Your task to perform on an android device: Open location settings Image 0: 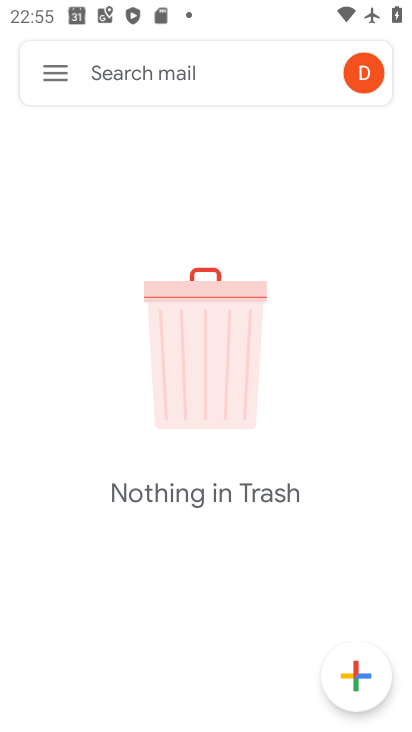
Step 0: press home button
Your task to perform on an android device: Open location settings Image 1: 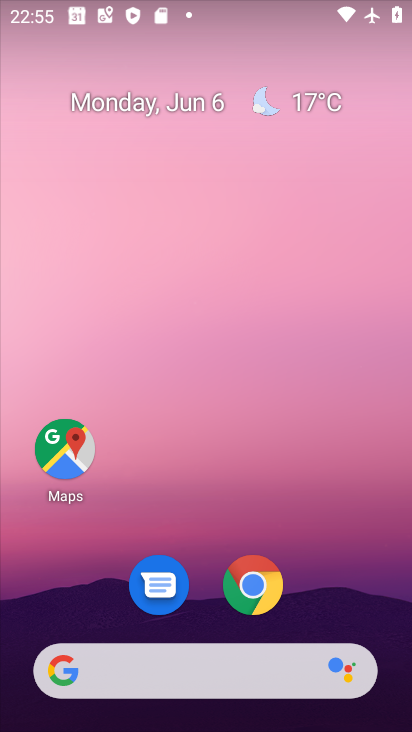
Step 1: drag from (197, 492) to (217, 27)
Your task to perform on an android device: Open location settings Image 2: 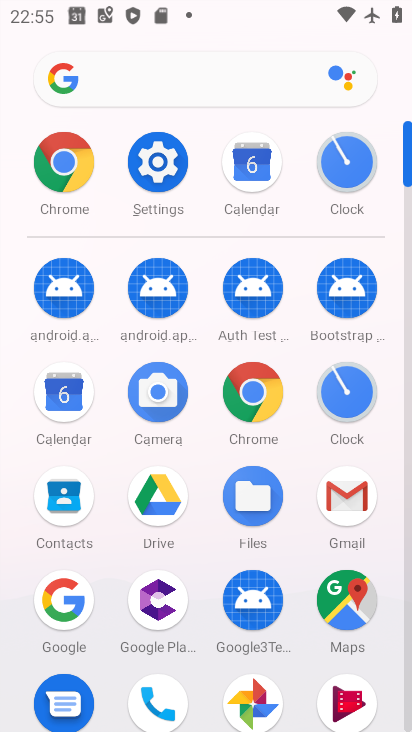
Step 2: click (185, 160)
Your task to perform on an android device: Open location settings Image 3: 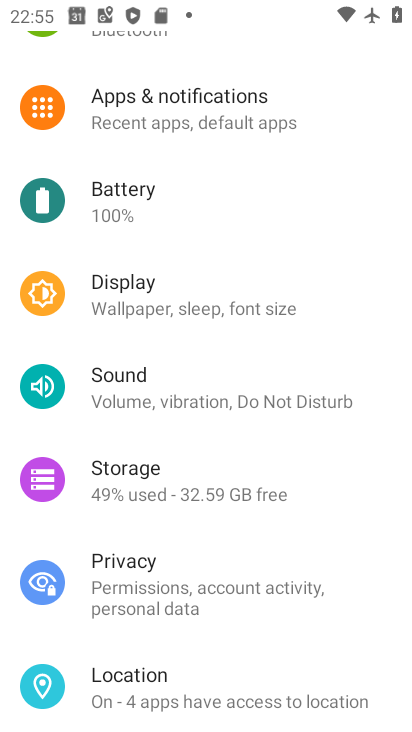
Step 3: click (206, 678)
Your task to perform on an android device: Open location settings Image 4: 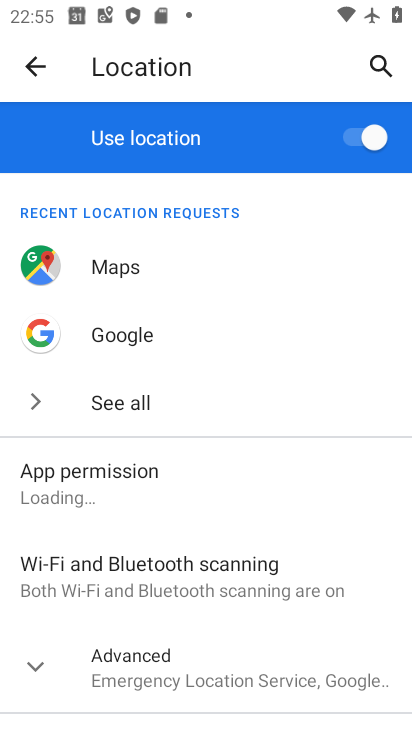
Step 4: task complete